Your task to perform on an android device: change alarm snooze length Image 0: 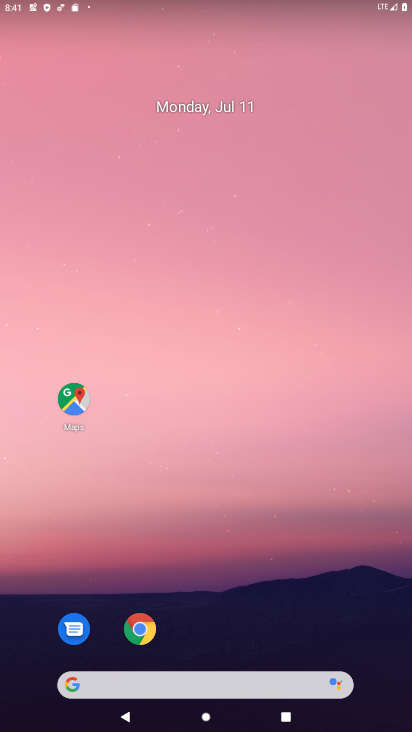
Step 0: drag from (200, 662) to (287, 92)
Your task to perform on an android device: change alarm snooze length Image 1: 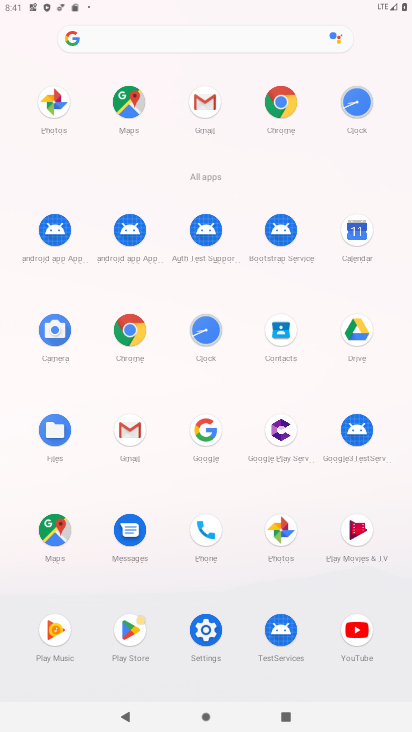
Step 1: click (347, 111)
Your task to perform on an android device: change alarm snooze length Image 2: 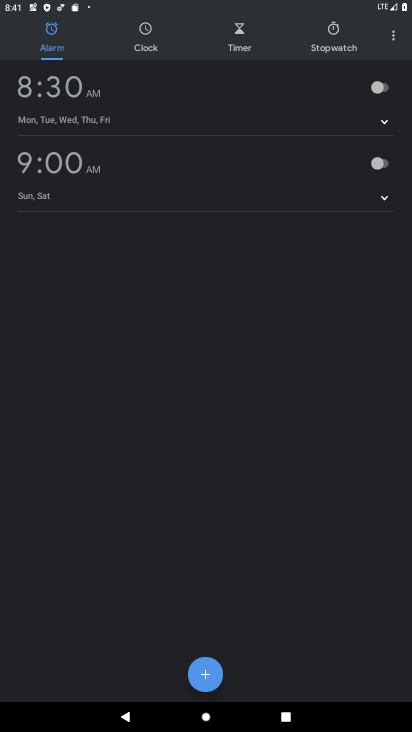
Step 2: click (390, 34)
Your task to perform on an android device: change alarm snooze length Image 3: 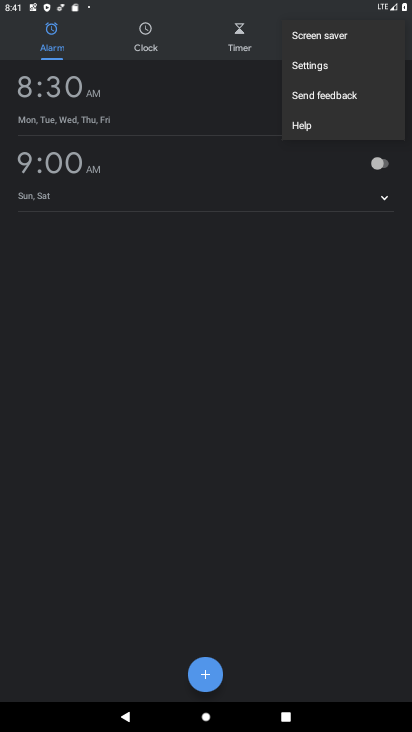
Step 3: click (315, 65)
Your task to perform on an android device: change alarm snooze length Image 4: 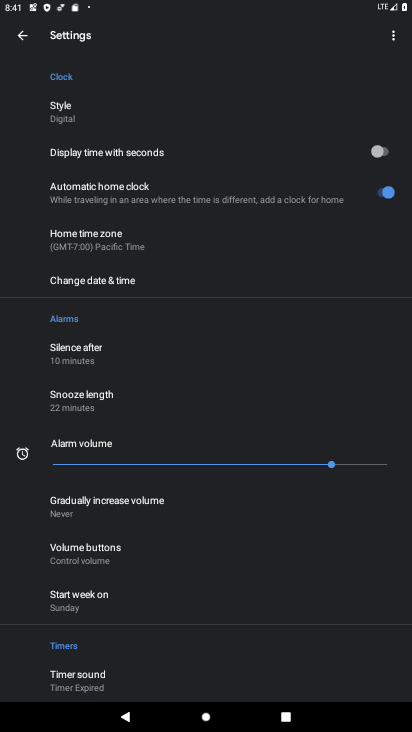
Step 4: click (115, 408)
Your task to perform on an android device: change alarm snooze length Image 5: 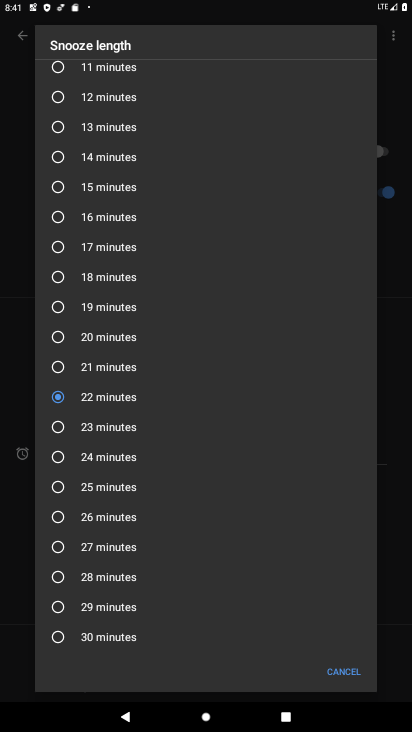
Step 5: click (152, 524)
Your task to perform on an android device: change alarm snooze length Image 6: 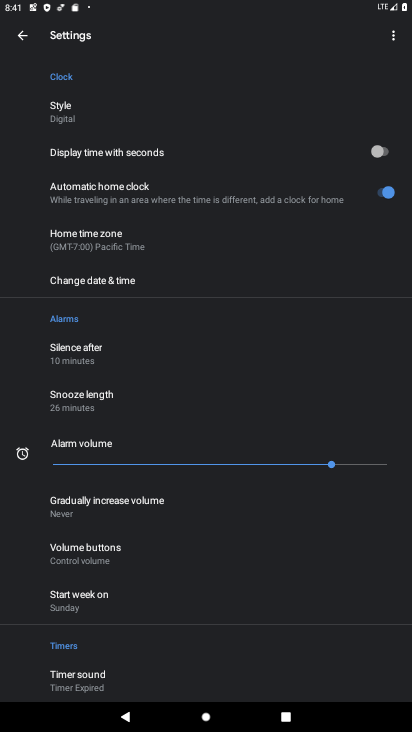
Step 6: task complete